Your task to perform on an android device: turn on sleep mode Image 0: 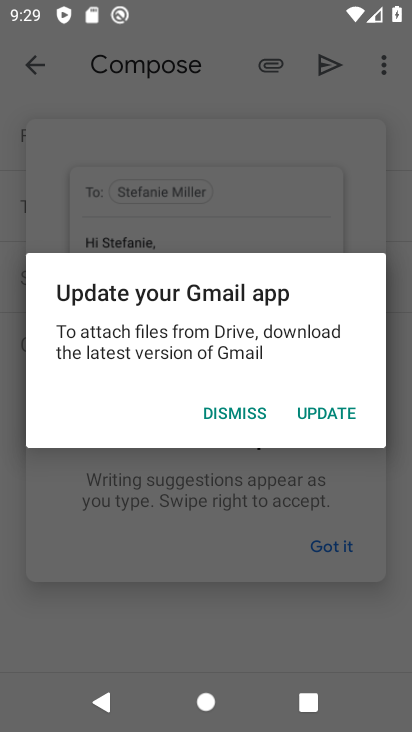
Step 0: task complete